Your task to perform on an android device: Open the phone app and click the voicemail tab. Image 0: 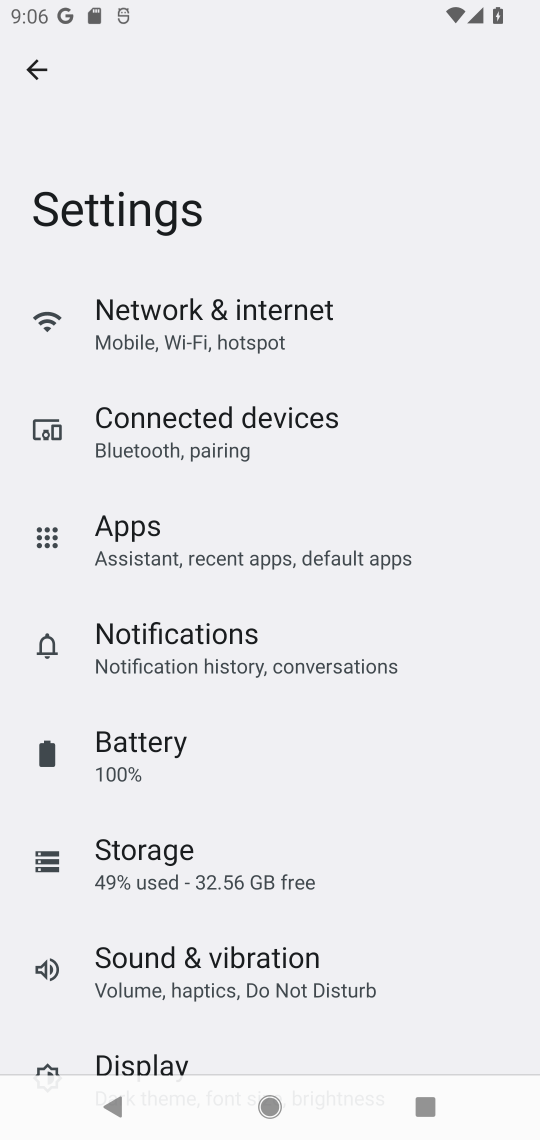
Step 0: press home button
Your task to perform on an android device: Open the phone app and click the voicemail tab. Image 1: 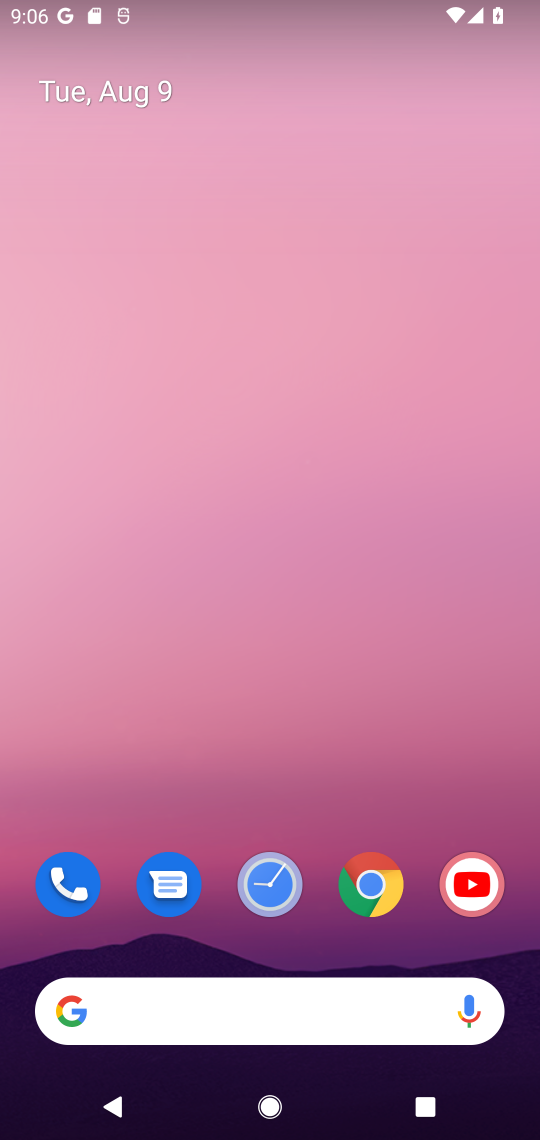
Step 1: drag from (253, 877) to (348, 91)
Your task to perform on an android device: Open the phone app and click the voicemail tab. Image 2: 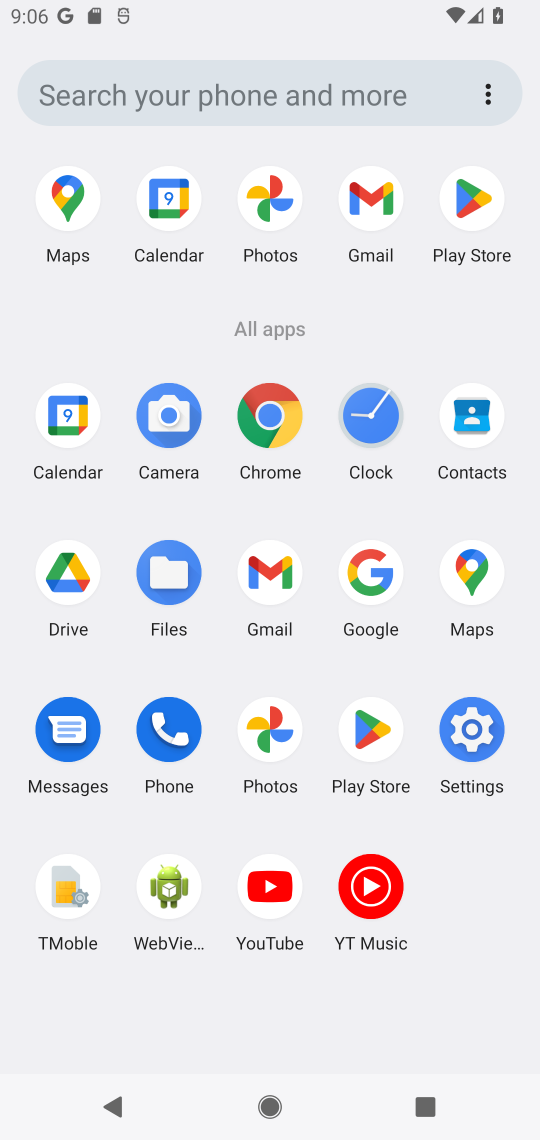
Step 2: click (177, 733)
Your task to perform on an android device: Open the phone app and click the voicemail tab. Image 3: 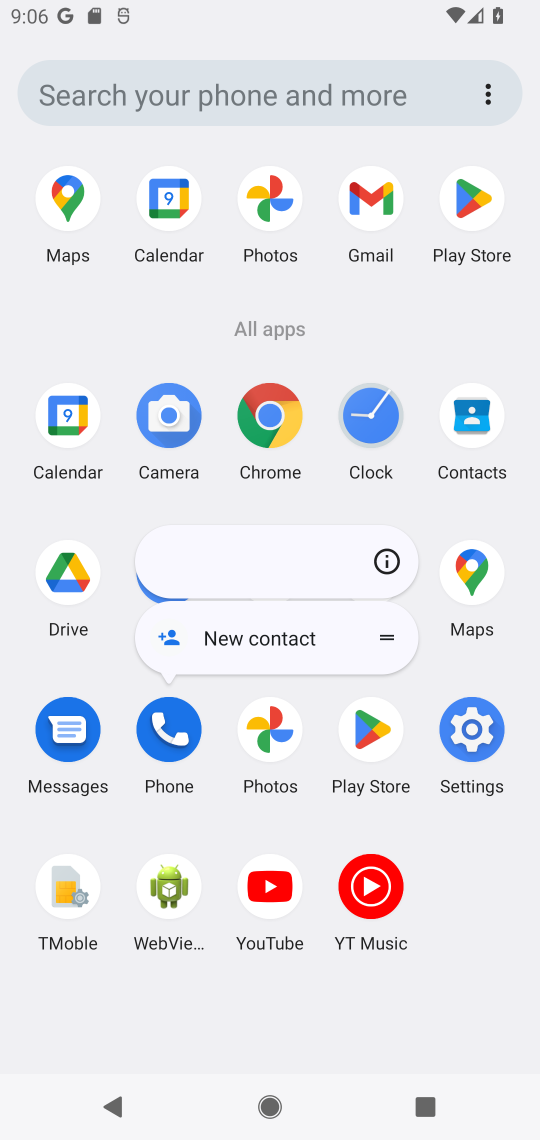
Step 3: click (166, 757)
Your task to perform on an android device: Open the phone app and click the voicemail tab. Image 4: 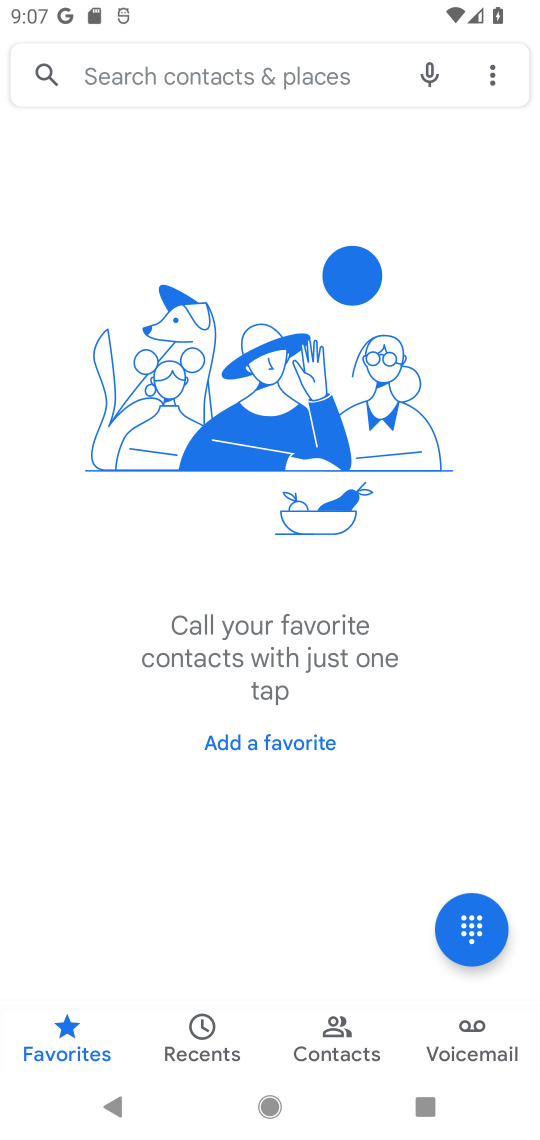
Step 4: click (469, 1034)
Your task to perform on an android device: Open the phone app and click the voicemail tab. Image 5: 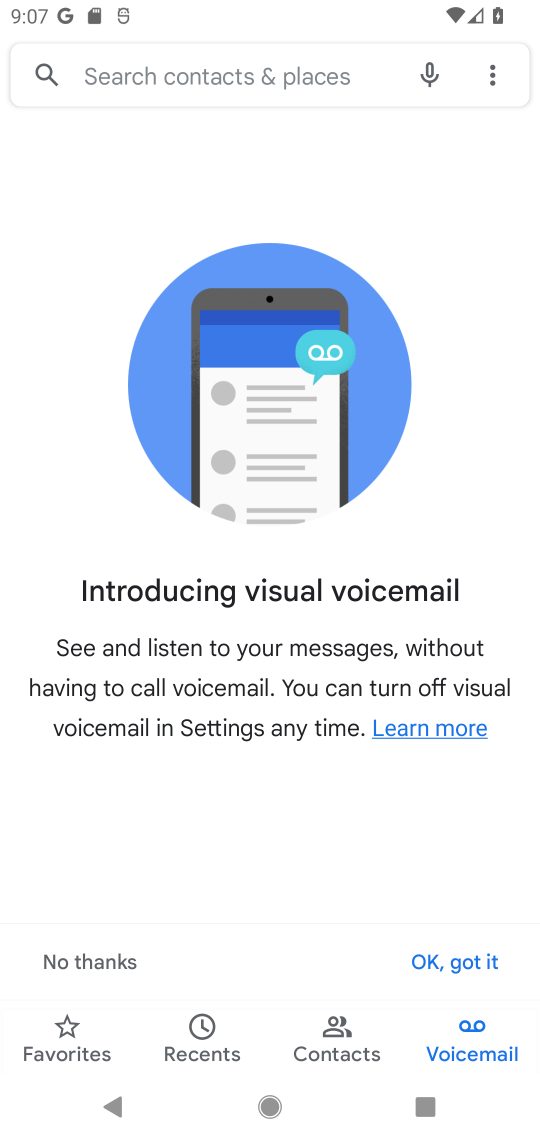
Step 5: task complete